Your task to perform on an android device: Do I have any events tomorrow? Image 0: 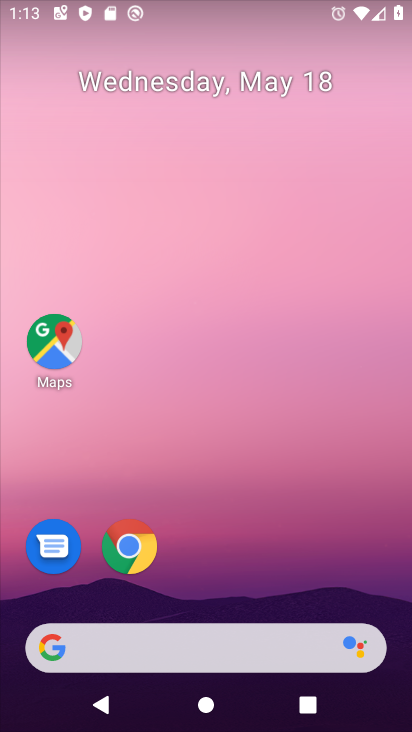
Step 0: drag from (208, 590) to (397, 8)
Your task to perform on an android device: Do I have any events tomorrow? Image 1: 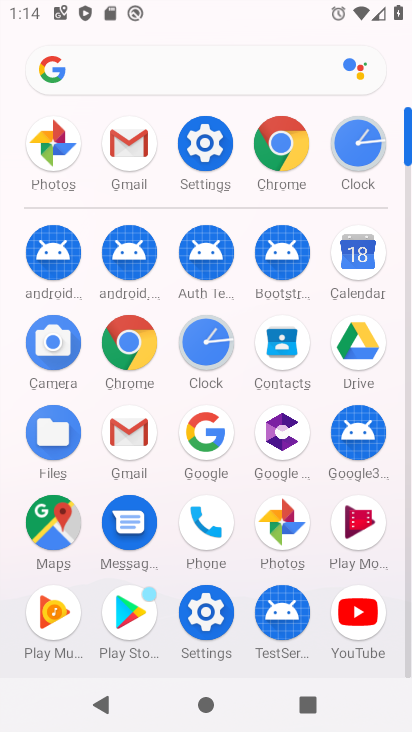
Step 1: click (345, 280)
Your task to perform on an android device: Do I have any events tomorrow? Image 2: 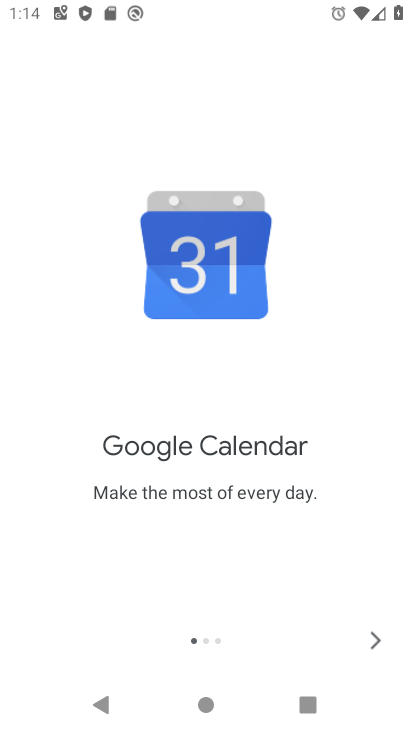
Step 2: click (372, 639)
Your task to perform on an android device: Do I have any events tomorrow? Image 3: 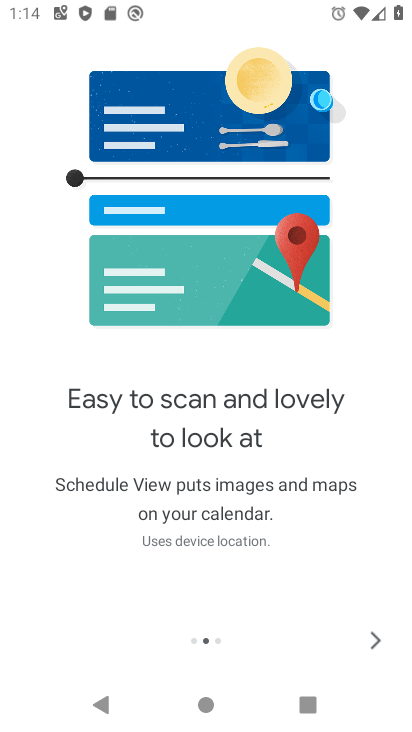
Step 3: click (374, 645)
Your task to perform on an android device: Do I have any events tomorrow? Image 4: 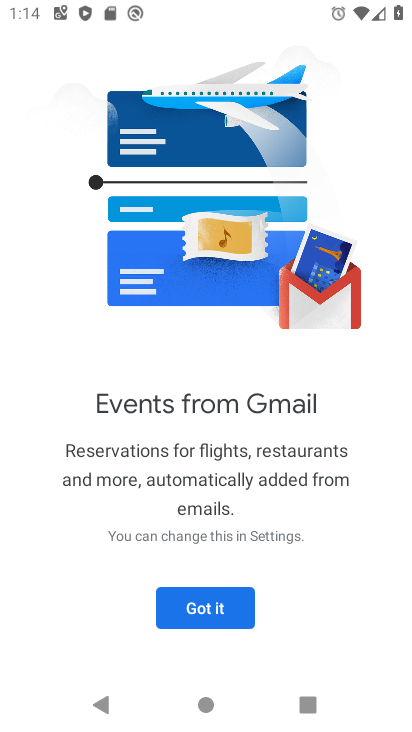
Step 4: click (217, 618)
Your task to perform on an android device: Do I have any events tomorrow? Image 5: 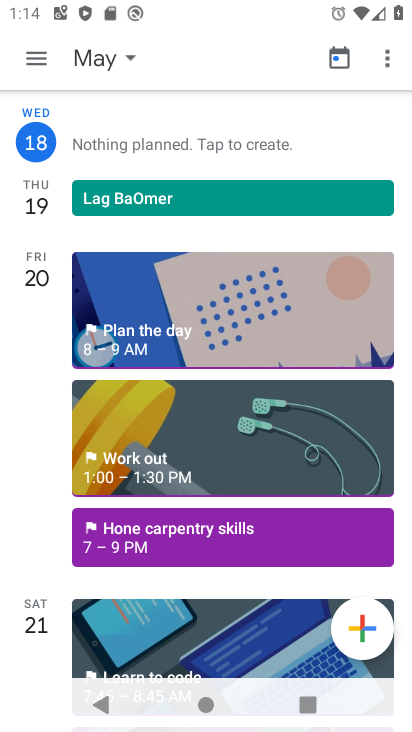
Step 5: task complete